Your task to perform on an android device: turn off data saver in the chrome app Image 0: 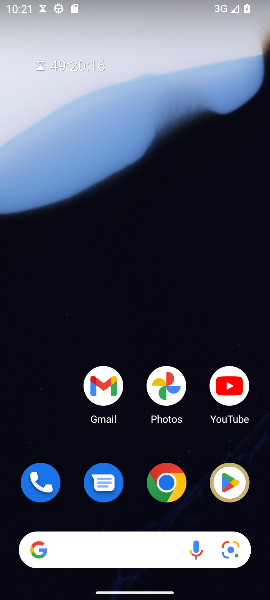
Step 0: drag from (180, 515) to (111, 43)
Your task to perform on an android device: turn off data saver in the chrome app Image 1: 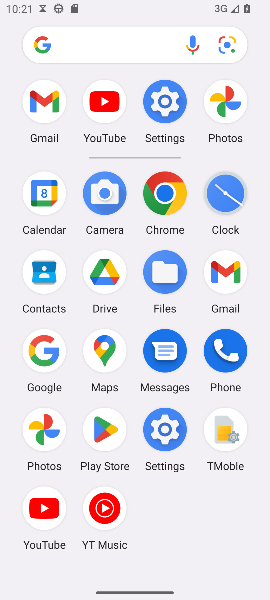
Step 1: click (160, 210)
Your task to perform on an android device: turn off data saver in the chrome app Image 2: 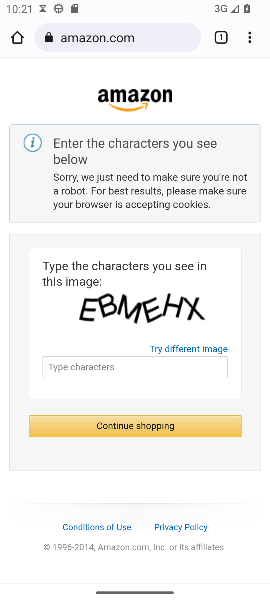
Step 2: drag from (256, 37) to (146, 526)
Your task to perform on an android device: turn off data saver in the chrome app Image 3: 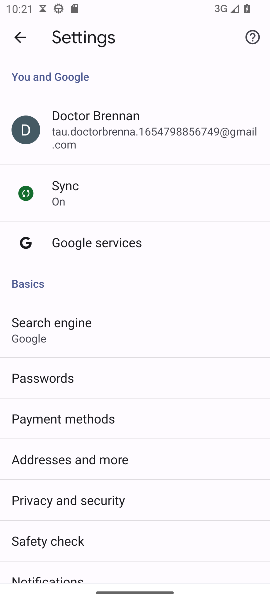
Step 3: drag from (103, 483) to (63, 132)
Your task to perform on an android device: turn off data saver in the chrome app Image 4: 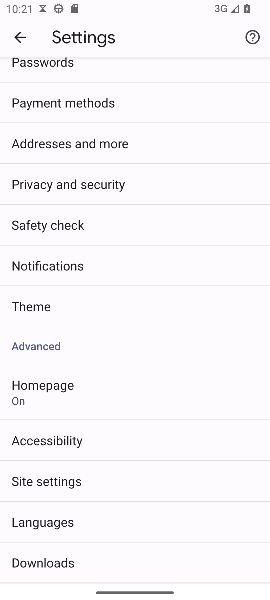
Step 4: drag from (106, 487) to (107, 201)
Your task to perform on an android device: turn off data saver in the chrome app Image 5: 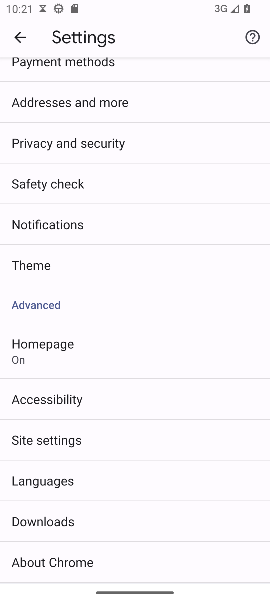
Step 5: drag from (142, 126) to (217, 500)
Your task to perform on an android device: turn off data saver in the chrome app Image 6: 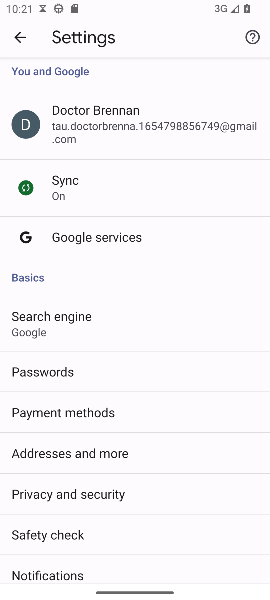
Step 6: drag from (183, 472) to (201, 203)
Your task to perform on an android device: turn off data saver in the chrome app Image 7: 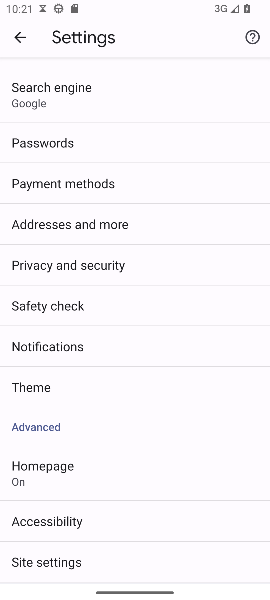
Step 7: drag from (175, 421) to (164, 143)
Your task to perform on an android device: turn off data saver in the chrome app Image 8: 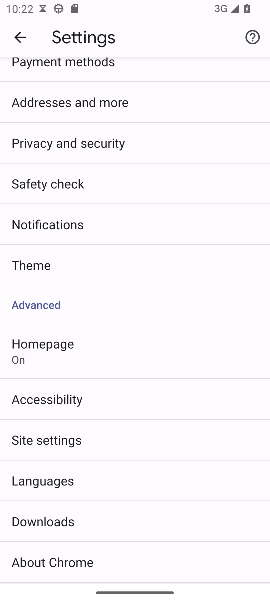
Step 8: click (56, 447)
Your task to perform on an android device: turn off data saver in the chrome app Image 9: 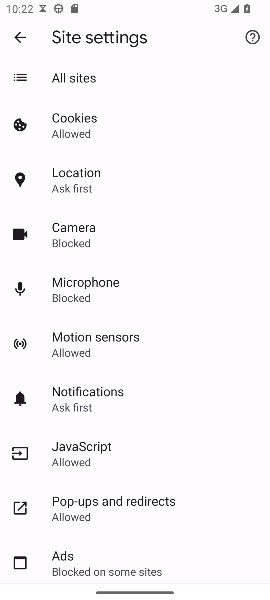
Step 9: task complete